Your task to perform on an android device: Go to ESPN.com Image 0: 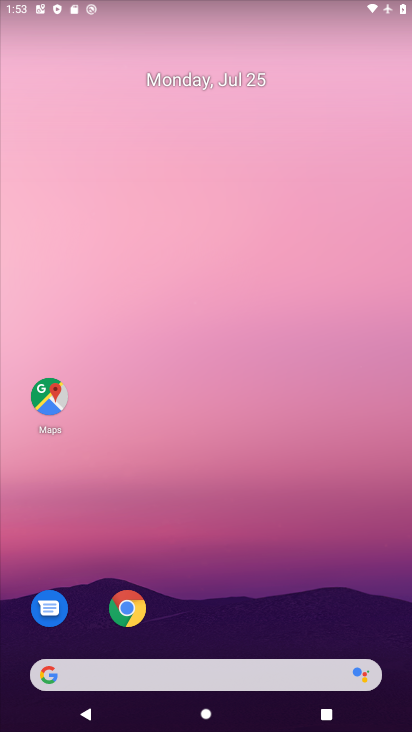
Step 0: drag from (145, 628) to (140, 167)
Your task to perform on an android device: Go to ESPN.com Image 1: 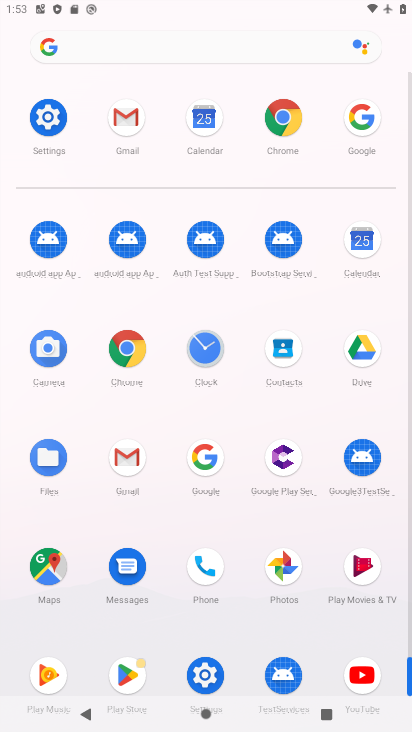
Step 1: click (202, 682)
Your task to perform on an android device: Go to ESPN.com Image 2: 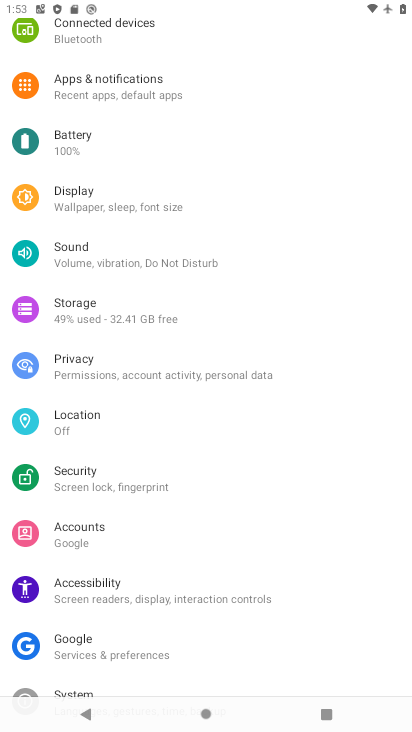
Step 2: press home button
Your task to perform on an android device: Go to ESPN.com Image 3: 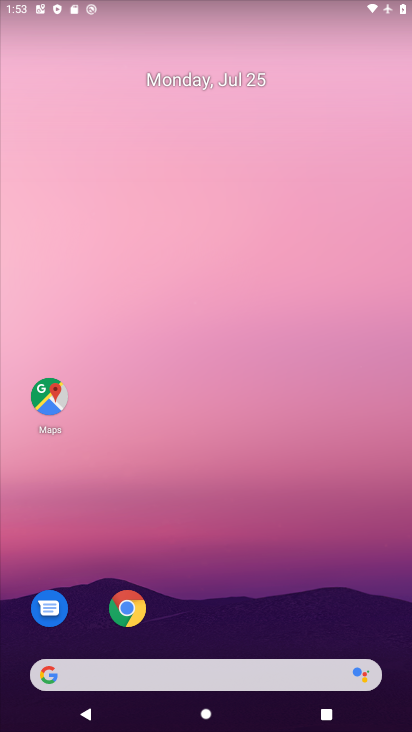
Step 3: drag from (209, 577) to (282, 136)
Your task to perform on an android device: Go to ESPN.com Image 4: 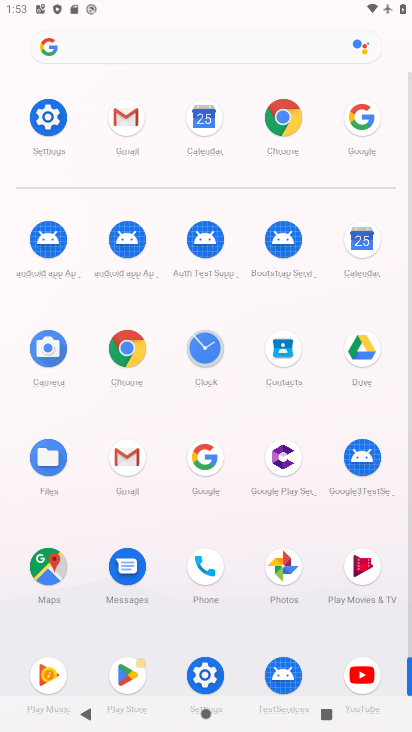
Step 4: click (275, 137)
Your task to perform on an android device: Go to ESPN.com Image 5: 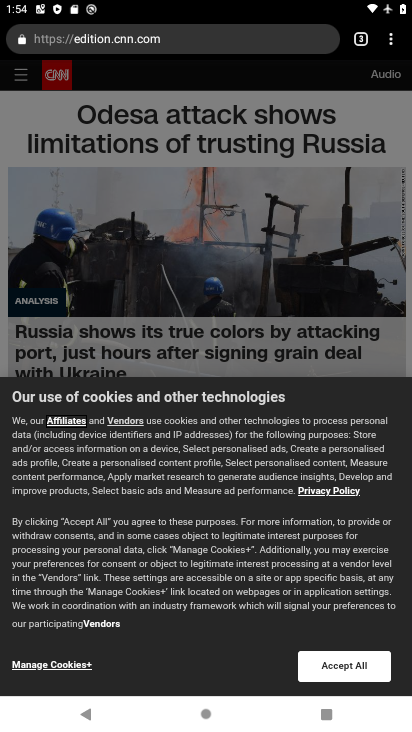
Step 5: click (289, 36)
Your task to perform on an android device: Go to ESPN.com Image 6: 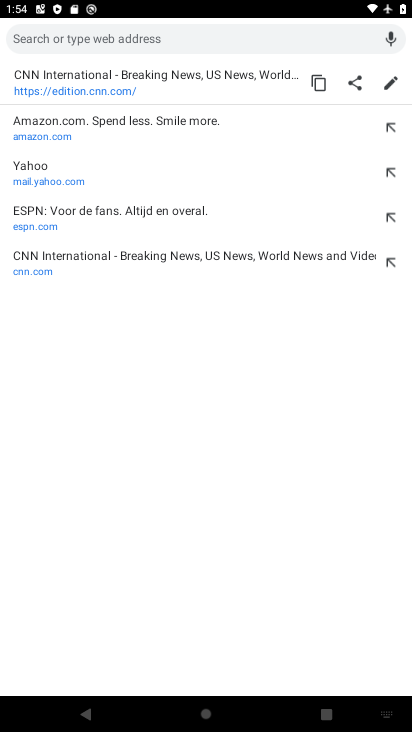
Step 6: type "espn"
Your task to perform on an android device: Go to ESPN.com Image 7: 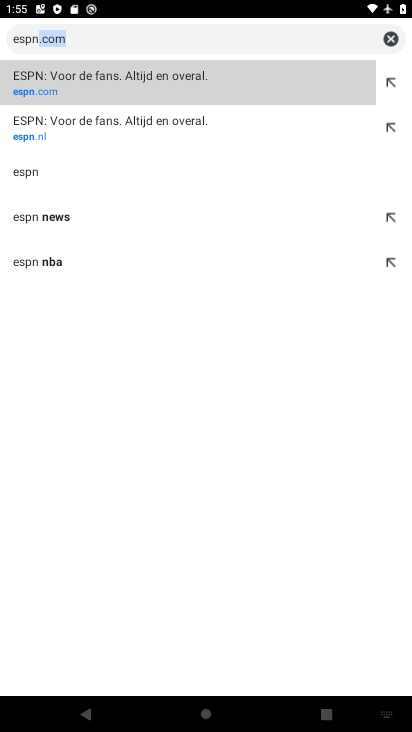
Step 7: click (82, 83)
Your task to perform on an android device: Go to ESPN.com Image 8: 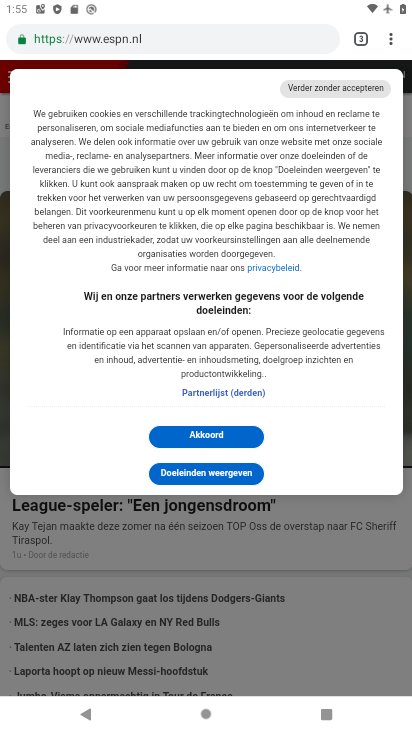
Step 8: task complete